Your task to perform on an android device: delete the emails in spam in the gmail app Image 0: 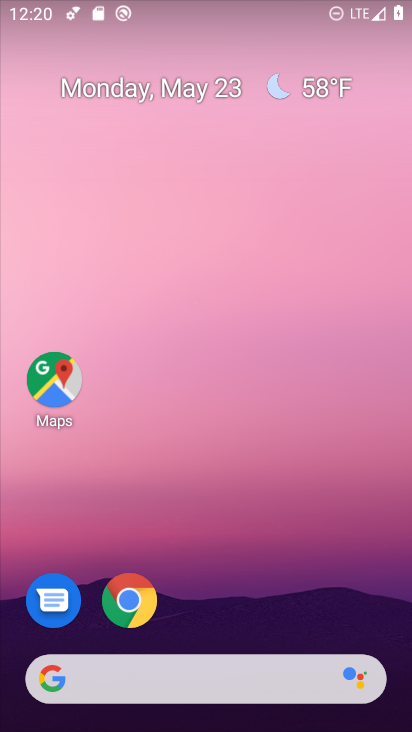
Step 0: drag from (320, 603) to (308, 10)
Your task to perform on an android device: delete the emails in spam in the gmail app Image 1: 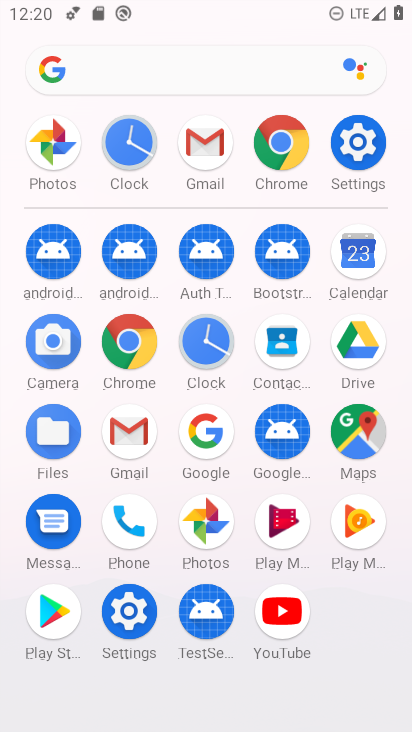
Step 1: click (198, 148)
Your task to perform on an android device: delete the emails in spam in the gmail app Image 2: 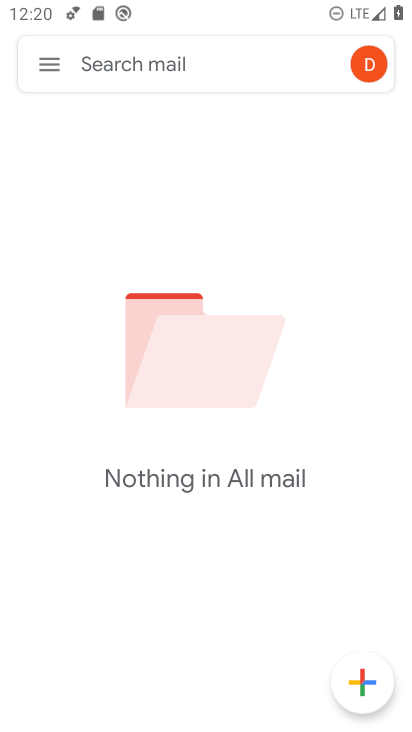
Step 2: click (22, 70)
Your task to perform on an android device: delete the emails in spam in the gmail app Image 3: 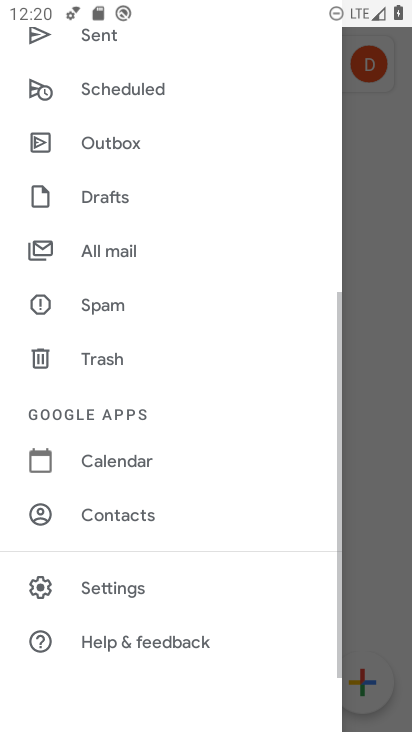
Step 3: click (100, 318)
Your task to perform on an android device: delete the emails in spam in the gmail app Image 4: 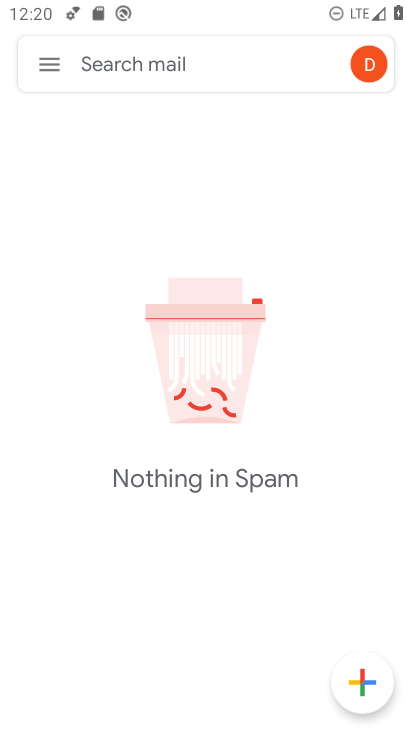
Step 4: task complete